Your task to perform on an android device: Open internet settings Image 0: 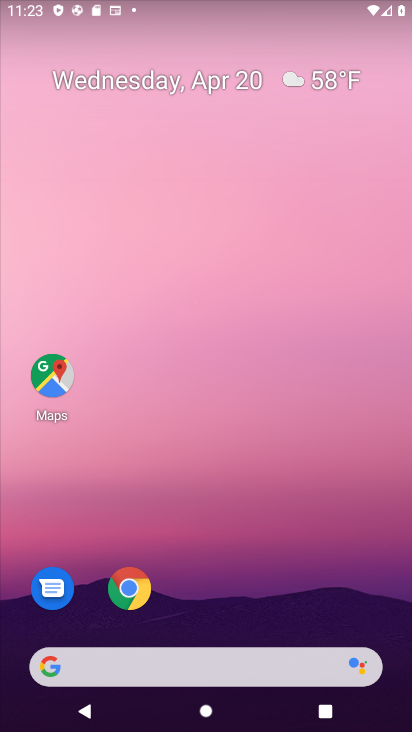
Step 0: drag from (305, 559) to (314, 164)
Your task to perform on an android device: Open internet settings Image 1: 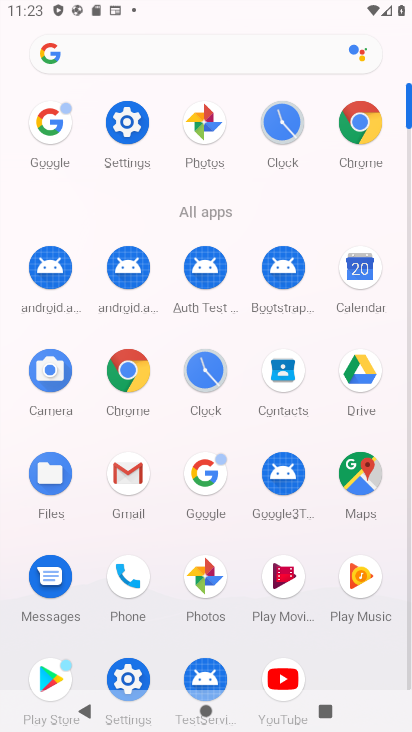
Step 1: click (138, 120)
Your task to perform on an android device: Open internet settings Image 2: 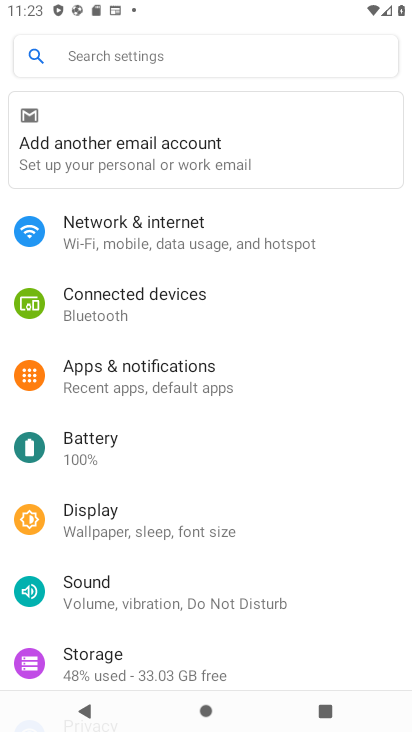
Step 2: click (151, 230)
Your task to perform on an android device: Open internet settings Image 3: 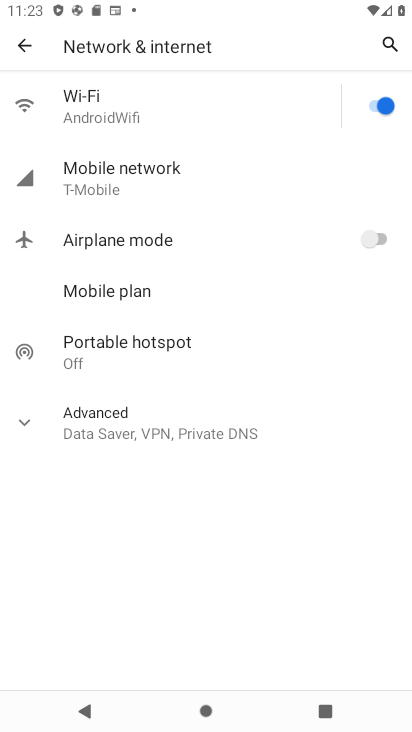
Step 3: task complete